Your task to perform on an android device: Open privacy settings Image 0: 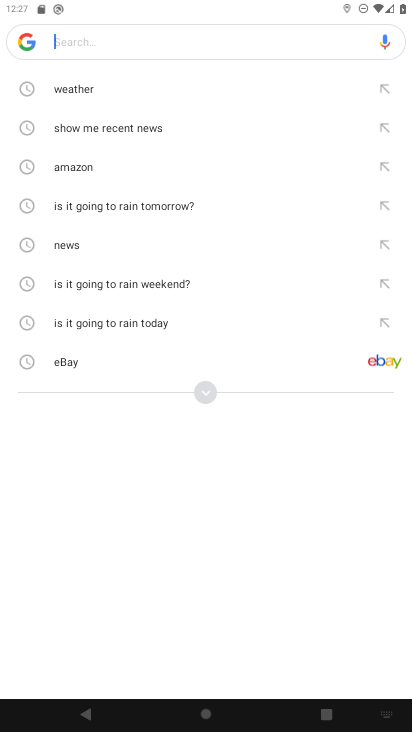
Step 0: press home button
Your task to perform on an android device: Open privacy settings Image 1: 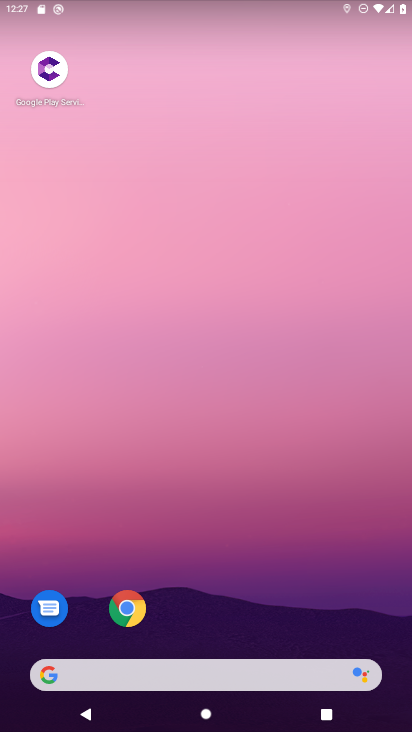
Step 1: drag from (325, 563) to (346, 118)
Your task to perform on an android device: Open privacy settings Image 2: 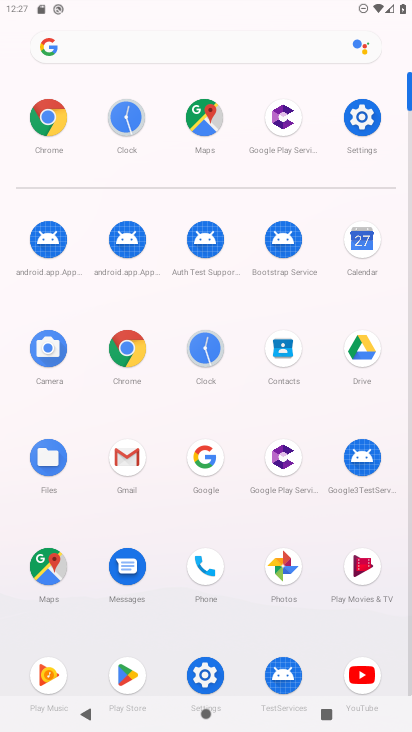
Step 2: click (358, 132)
Your task to perform on an android device: Open privacy settings Image 3: 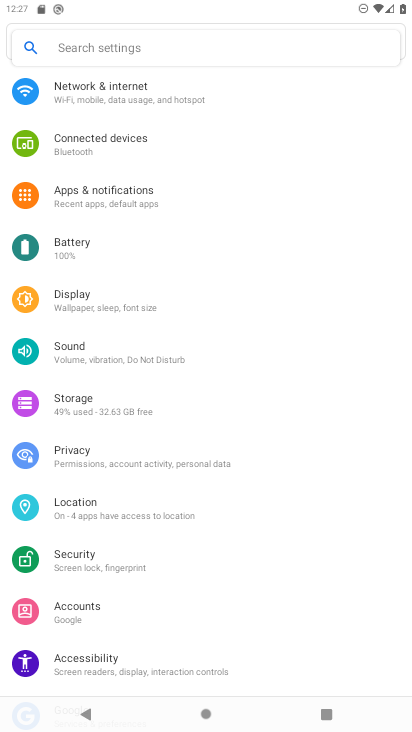
Step 3: drag from (358, 132) to (353, 193)
Your task to perform on an android device: Open privacy settings Image 4: 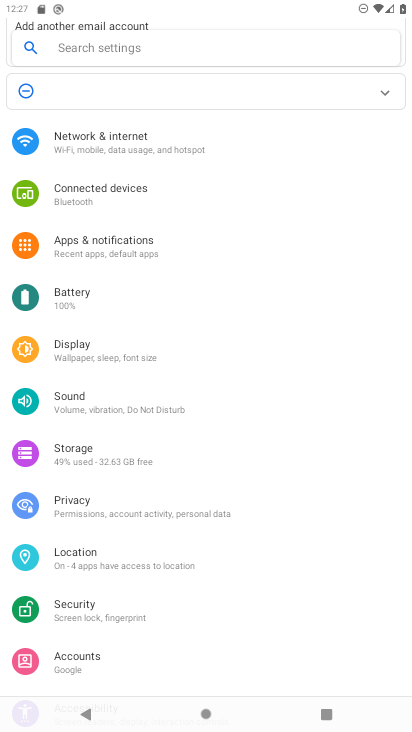
Step 4: drag from (348, 230) to (348, 301)
Your task to perform on an android device: Open privacy settings Image 5: 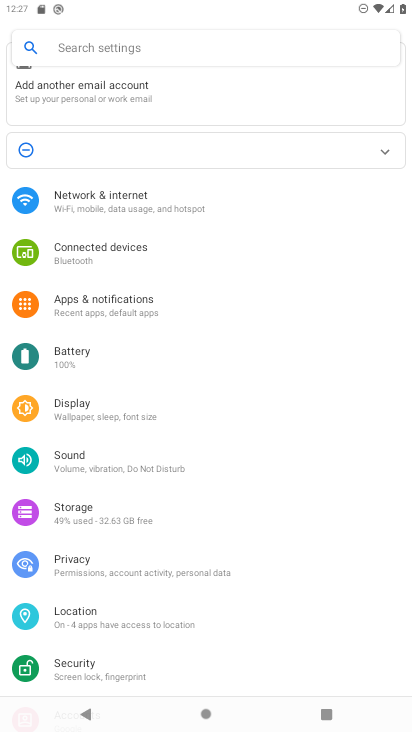
Step 5: drag from (358, 234) to (350, 326)
Your task to perform on an android device: Open privacy settings Image 6: 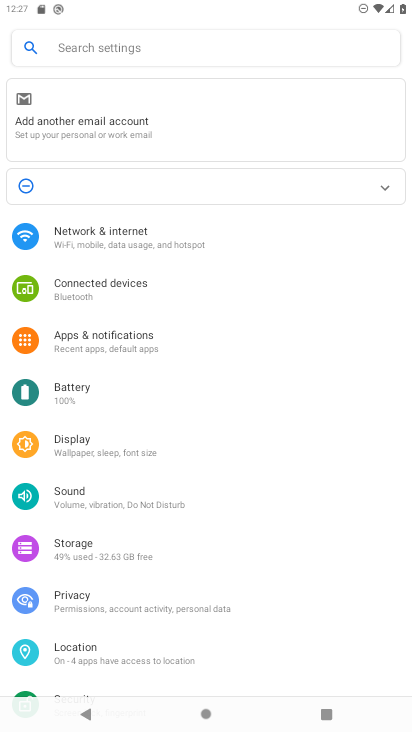
Step 6: drag from (322, 445) to (328, 389)
Your task to perform on an android device: Open privacy settings Image 7: 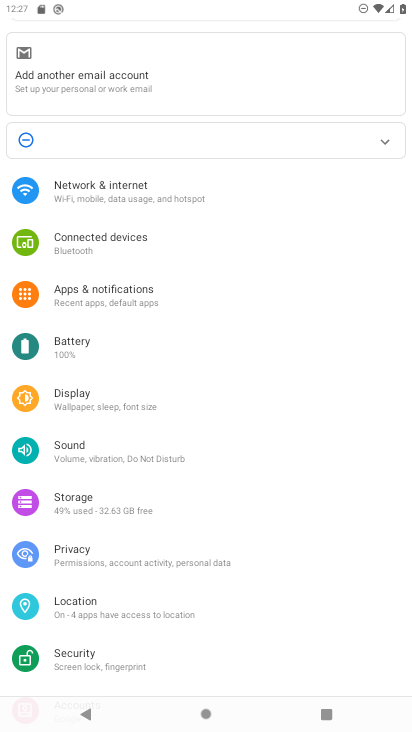
Step 7: drag from (326, 463) to (330, 404)
Your task to perform on an android device: Open privacy settings Image 8: 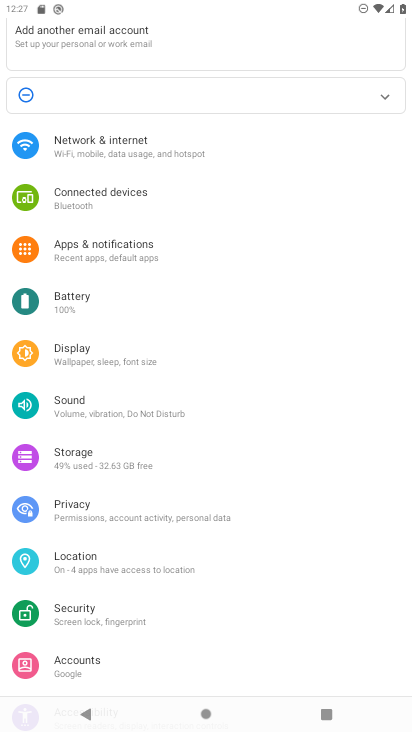
Step 8: drag from (320, 497) to (325, 426)
Your task to perform on an android device: Open privacy settings Image 9: 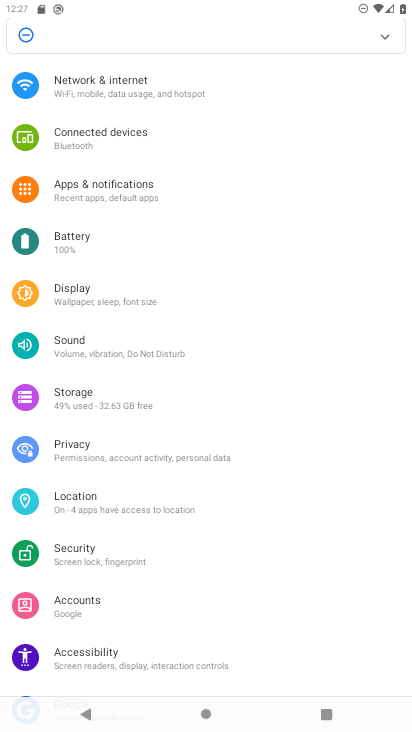
Step 9: drag from (325, 495) to (332, 443)
Your task to perform on an android device: Open privacy settings Image 10: 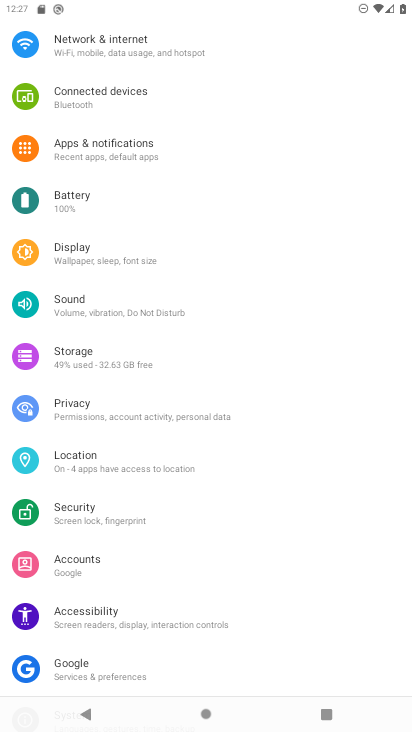
Step 10: drag from (323, 495) to (331, 445)
Your task to perform on an android device: Open privacy settings Image 11: 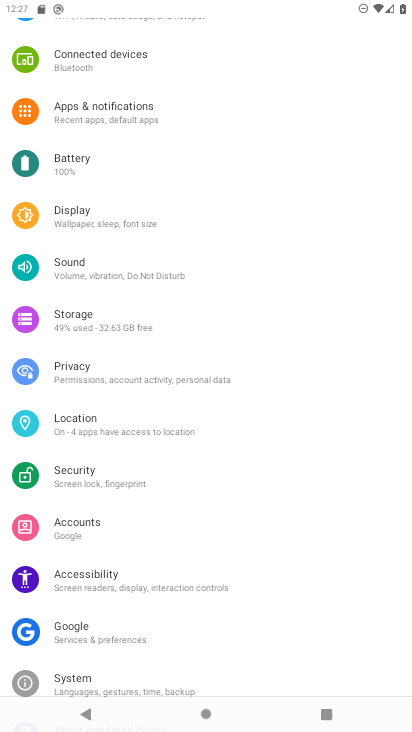
Step 11: drag from (325, 509) to (333, 450)
Your task to perform on an android device: Open privacy settings Image 12: 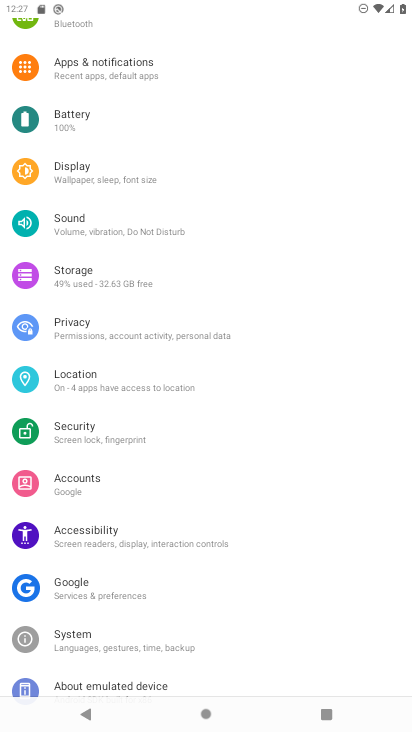
Step 12: drag from (320, 536) to (329, 458)
Your task to perform on an android device: Open privacy settings Image 13: 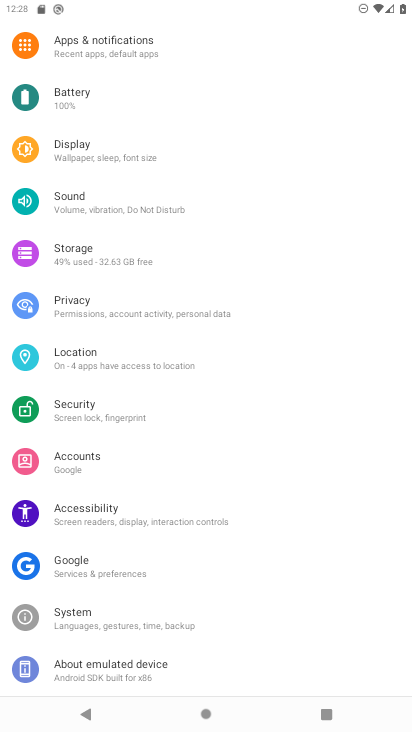
Step 13: drag from (285, 267) to (285, 333)
Your task to perform on an android device: Open privacy settings Image 14: 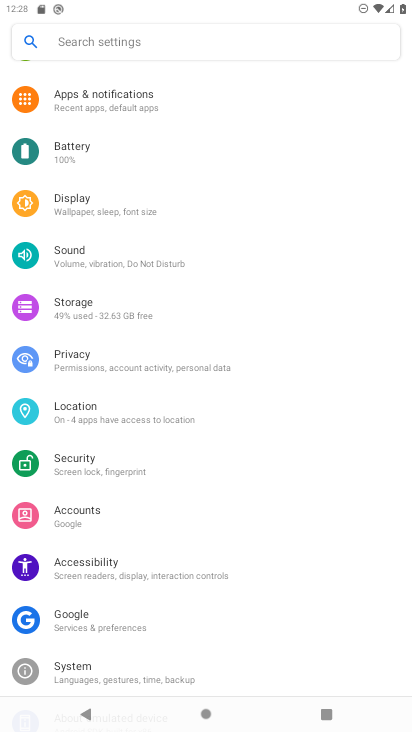
Step 14: drag from (292, 267) to (298, 458)
Your task to perform on an android device: Open privacy settings Image 15: 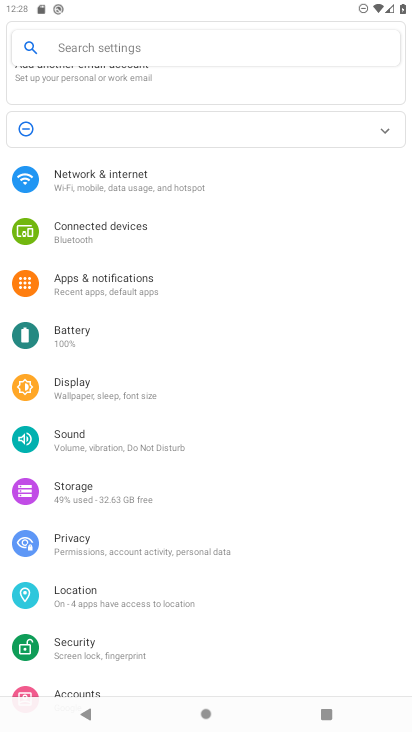
Step 15: click (245, 538)
Your task to perform on an android device: Open privacy settings Image 16: 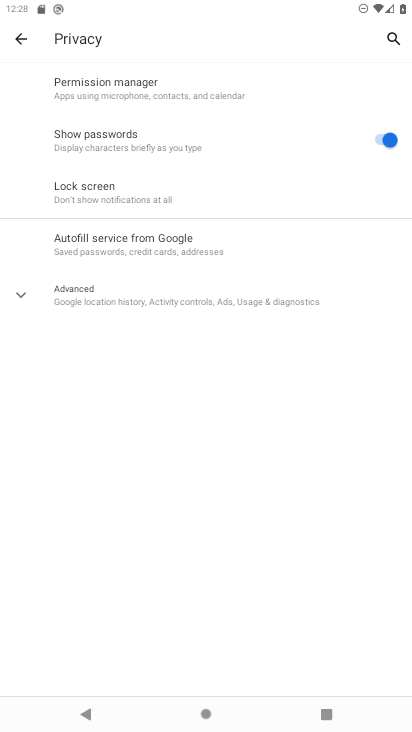
Step 16: click (251, 303)
Your task to perform on an android device: Open privacy settings Image 17: 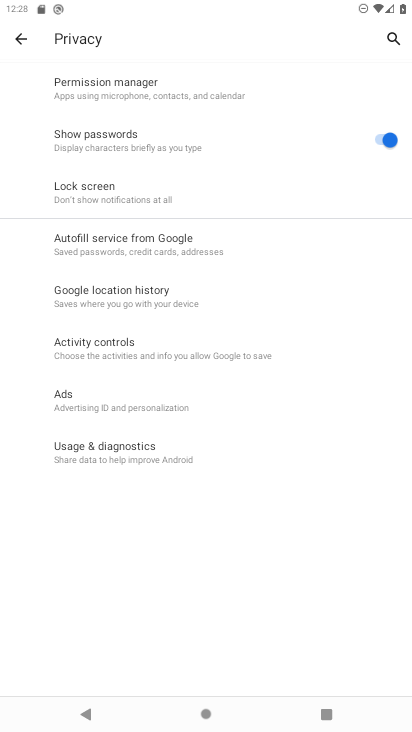
Step 17: task complete